Your task to perform on an android device: Go to privacy settings Image 0: 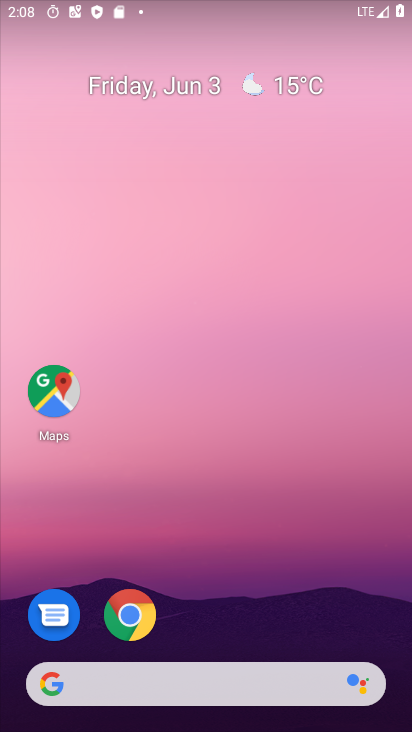
Step 0: drag from (178, 630) to (226, 90)
Your task to perform on an android device: Go to privacy settings Image 1: 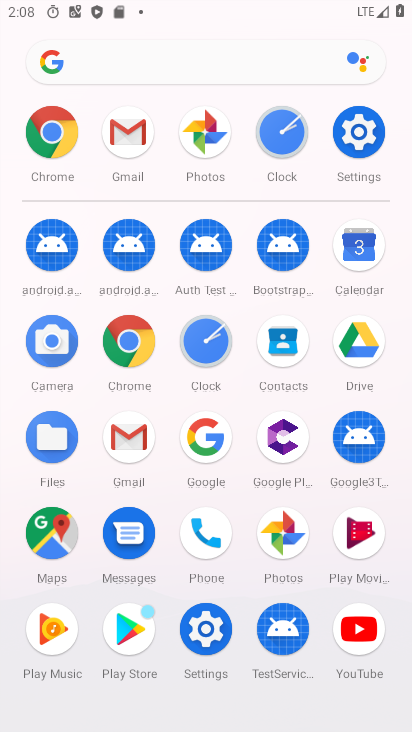
Step 1: click (364, 116)
Your task to perform on an android device: Go to privacy settings Image 2: 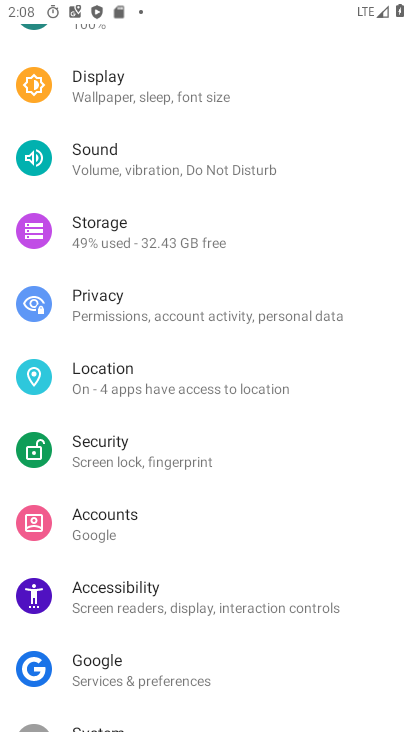
Step 2: click (119, 305)
Your task to perform on an android device: Go to privacy settings Image 3: 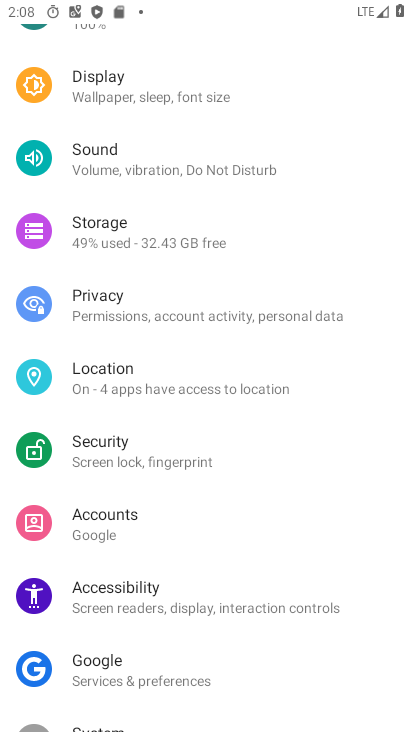
Step 3: click (119, 305)
Your task to perform on an android device: Go to privacy settings Image 4: 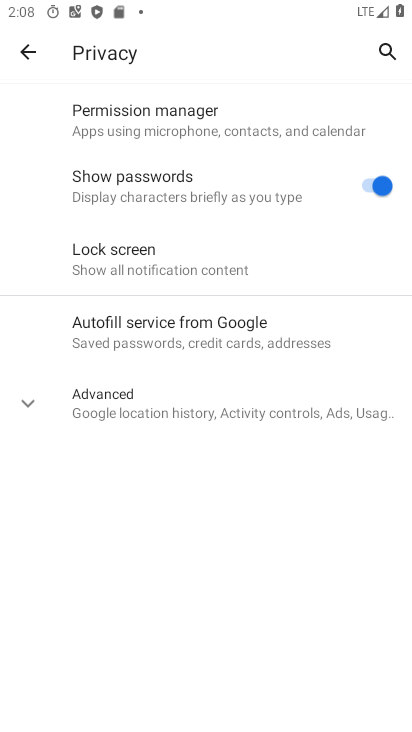
Step 4: task complete